Your task to perform on an android device: Go to CNN.com Image 0: 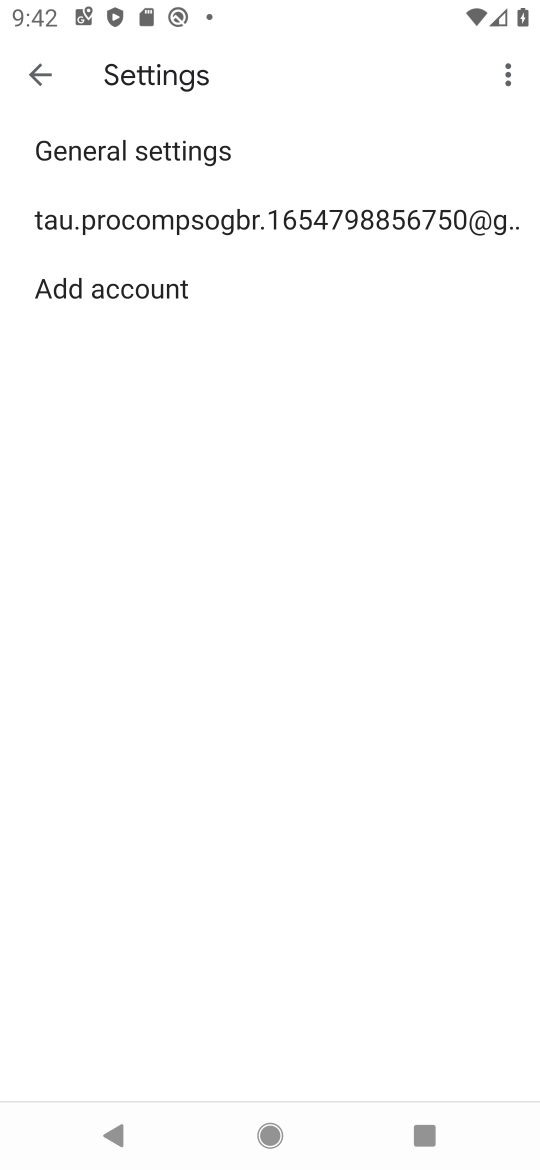
Step 0: press home button
Your task to perform on an android device: Go to CNN.com Image 1: 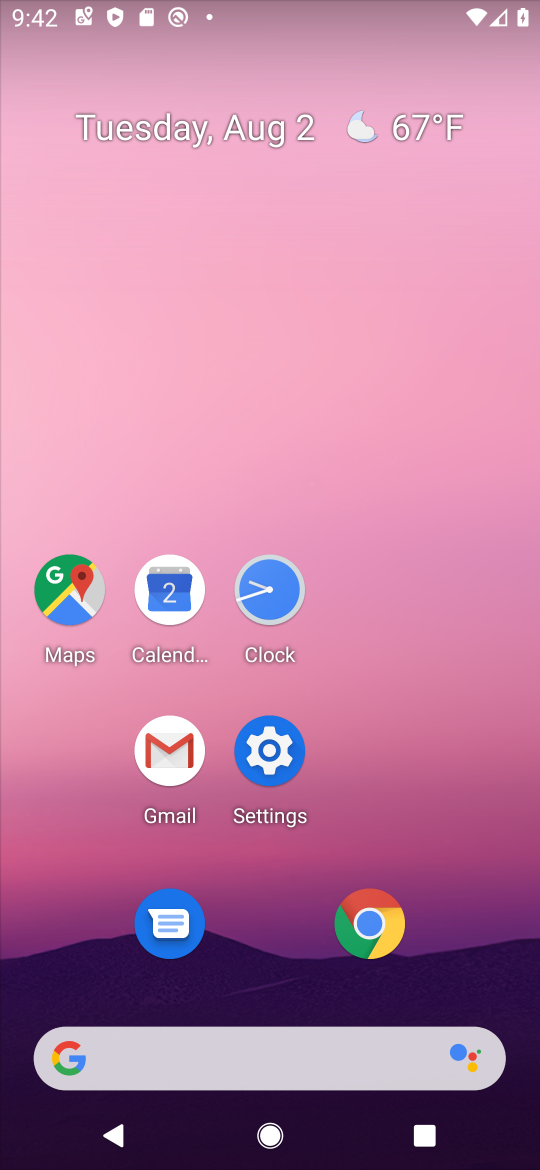
Step 1: click (369, 928)
Your task to perform on an android device: Go to CNN.com Image 2: 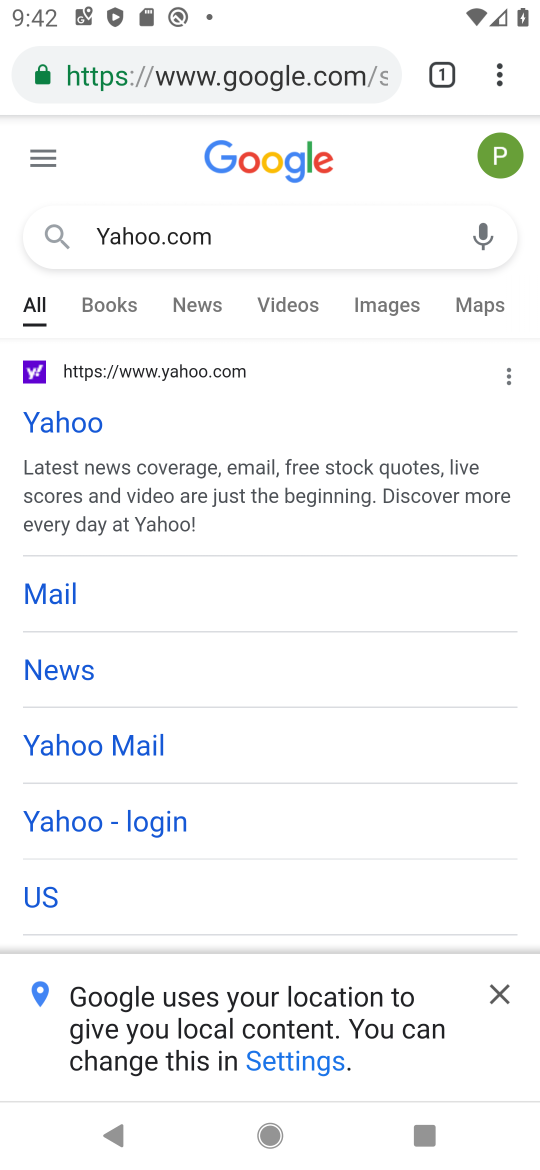
Step 2: click (359, 70)
Your task to perform on an android device: Go to CNN.com Image 3: 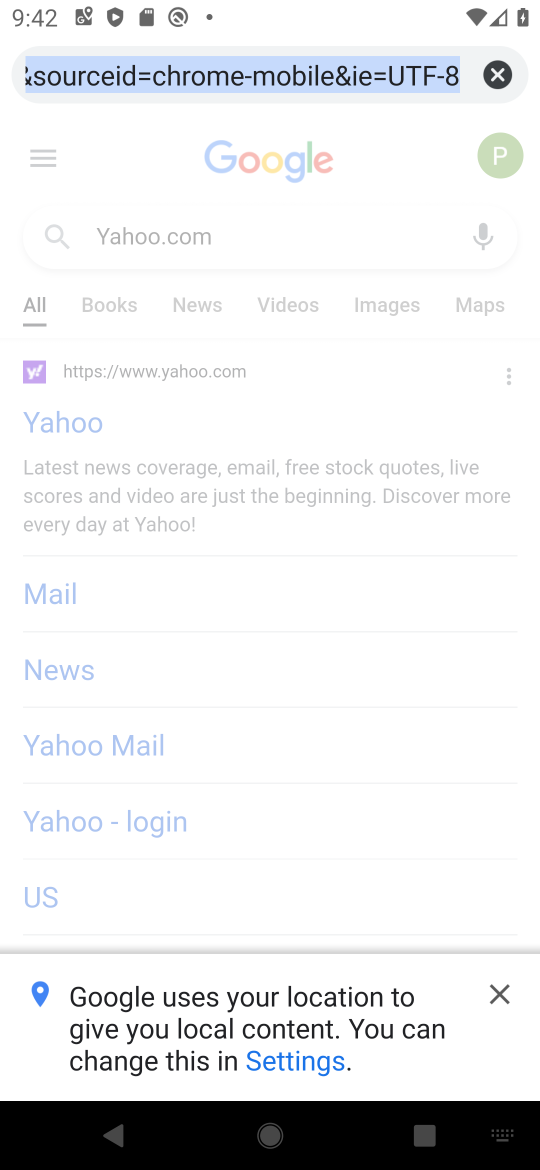
Step 3: click (493, 68)
Your task to perform on an android device: Go to CNN.com Image 4: 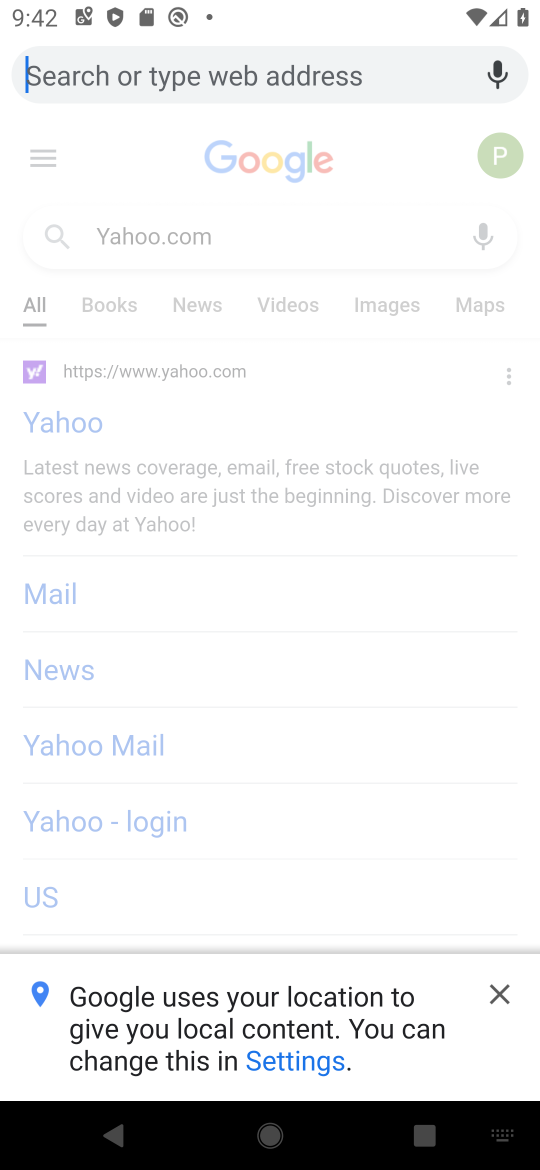
Step 4: type "CNN.com"
Your task to perform on an android device: Go to CNN.com Image 5: 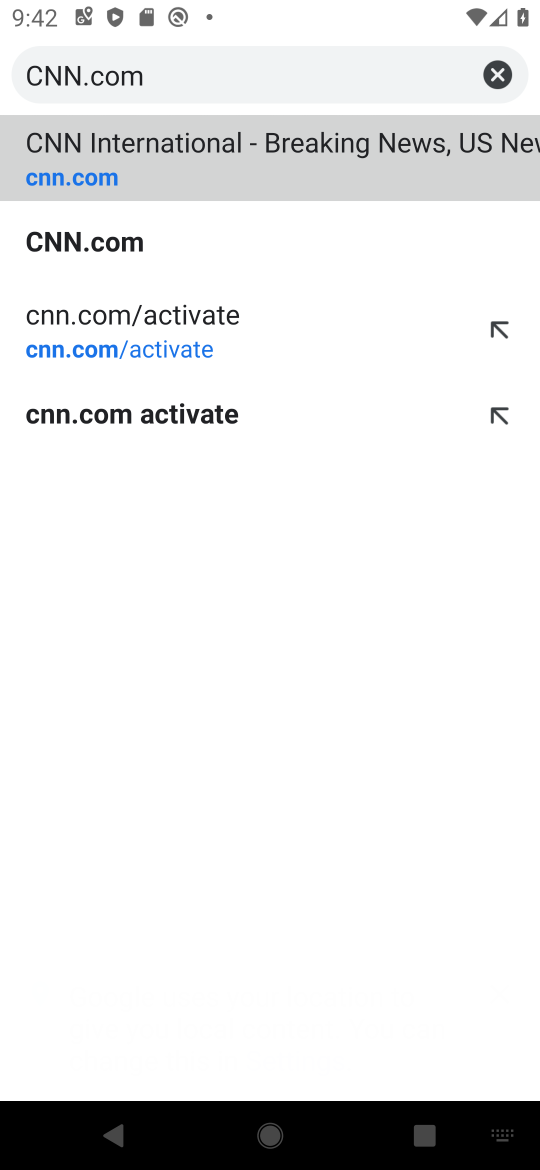
Step 5: click (107, 239)
Your task to perform on an android device: Go to CNN.com Image 6: 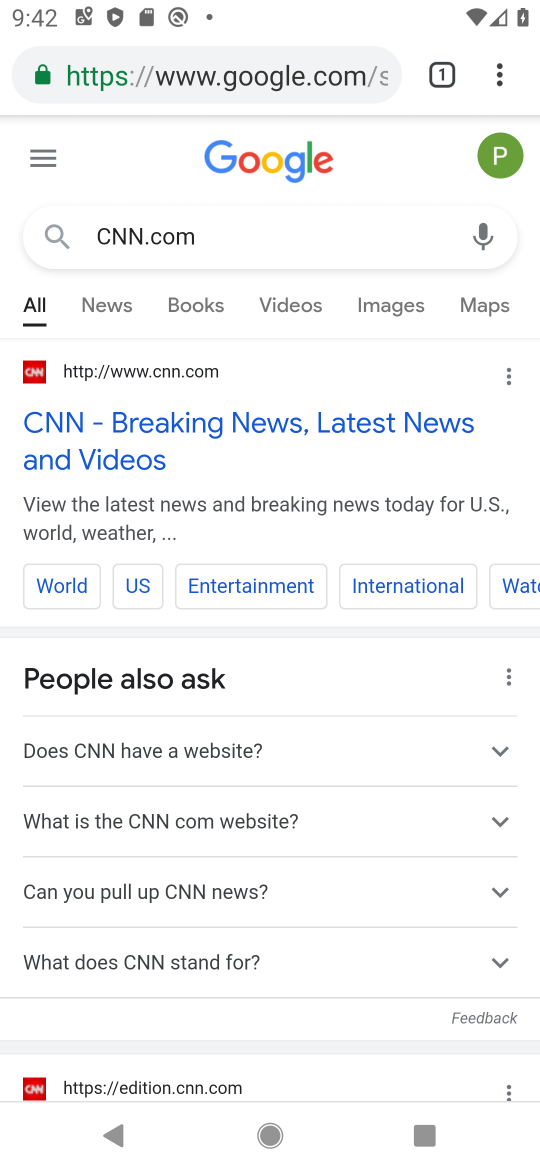
Step 6: task complete